Your task to perform on an android device: turn off location Image 0: 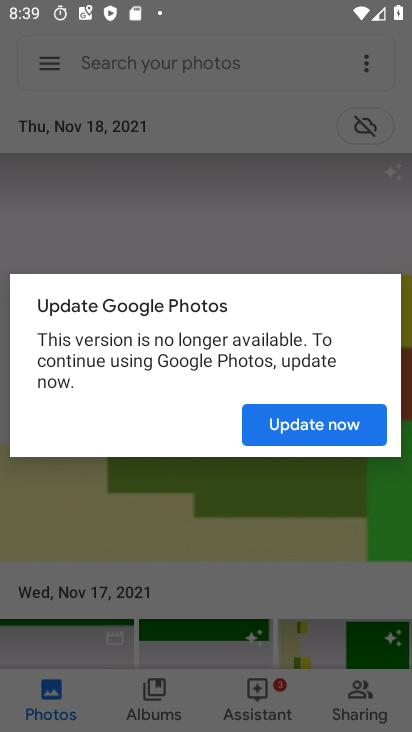
Step 0: press back button
Your task to perform on an android device: turn off location Image 1: 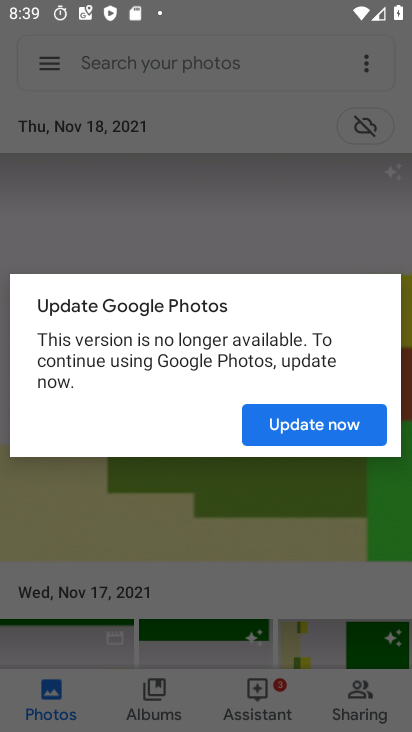
Step 1: press home button
Your task to perform on an android device: turn off location Image 2: 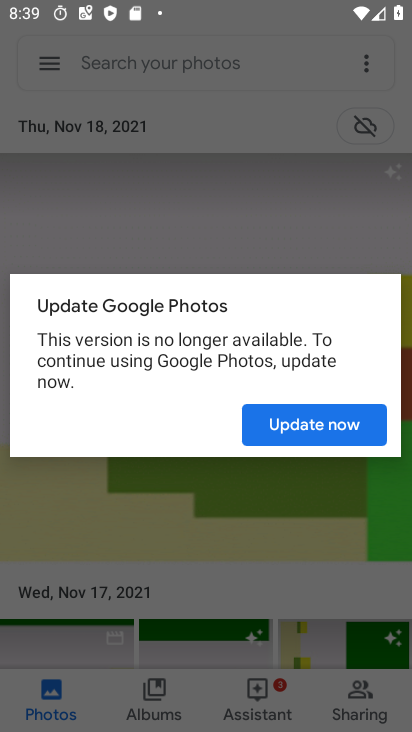
Step 2: press home button
Your task to perform on an android device: turn off location Image 3: 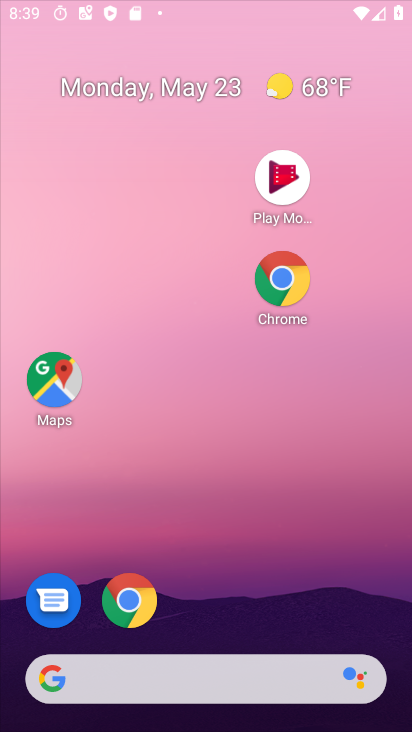
Step 3: press home button
Your task to perform on an android device: turn off location Image 4: 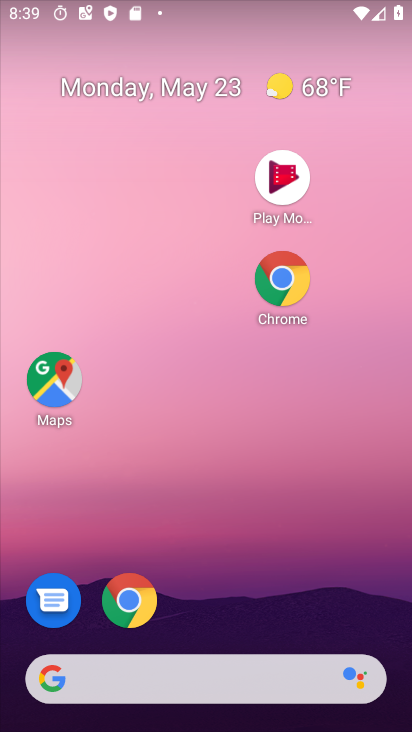
Step 4: drag from (317, 683) to (276, 244)
Your task to perform on an android device: turn off location Image 5: 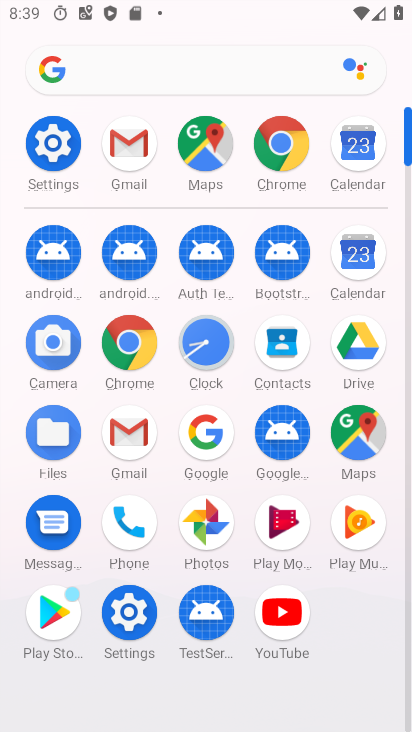
Step 5: click (62, 146)
Your task to perform on an android device: turn off location Image 6: 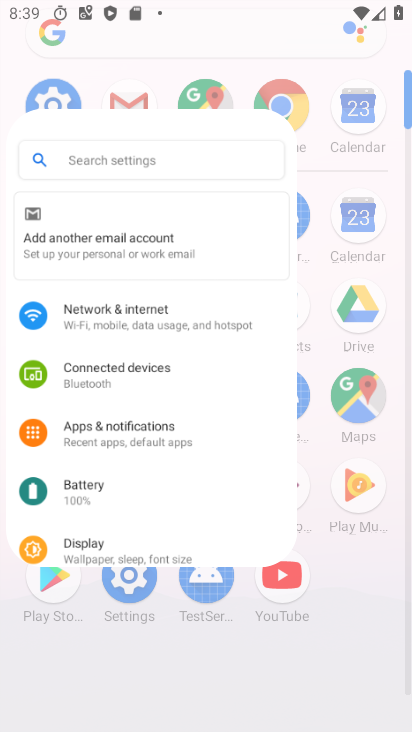
Step 6: click (60, 148)
Your task to perform on an android device: turn off location Image 7: 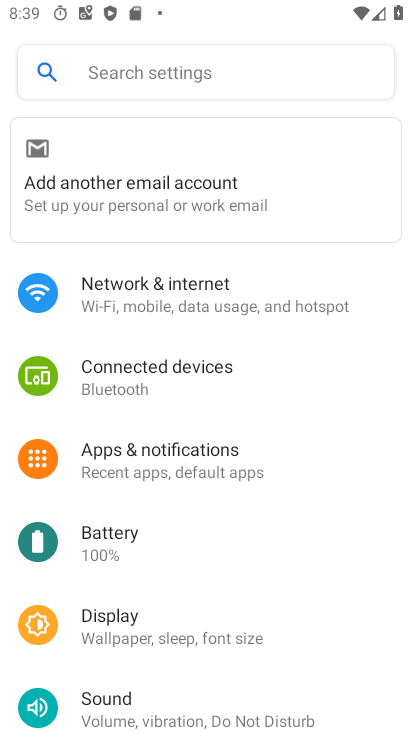
Step 7: click (61, 151)
Your task to perform on an android device: turn off location Image 8: 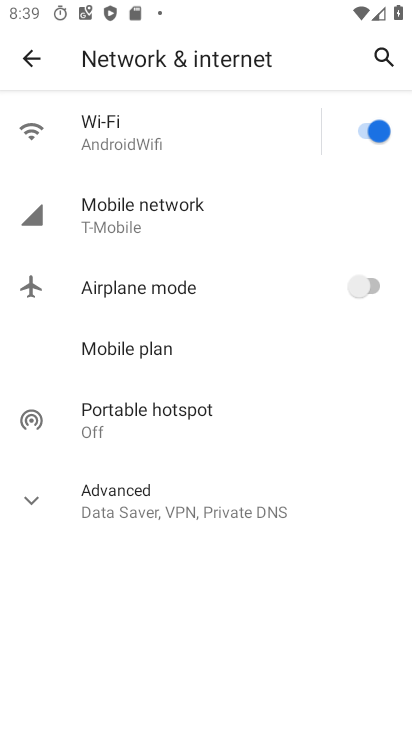
Step 8: click (32, 59)
Your task to perform on an android device: turn off location Image 9: 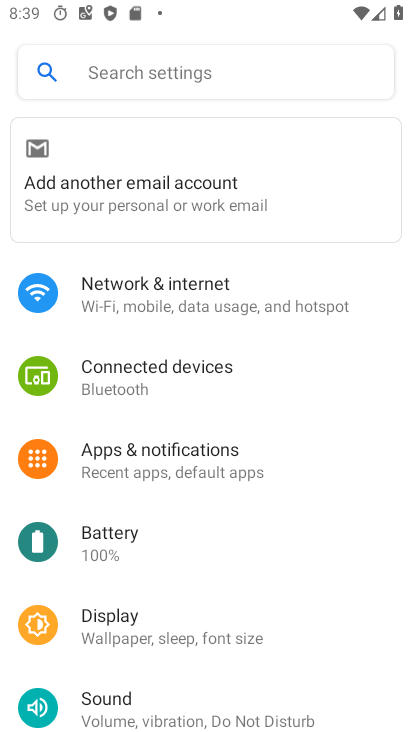
Step 9: drag from (147, 534) to (122, 221)
Your task to perform on an android device: turn off location Image 10: 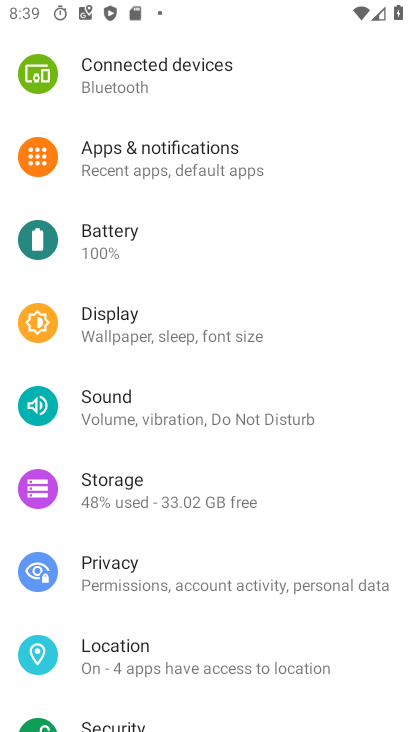
Step 10: drag from (174, 453) to (222, 150)
Your task to perform on an android device: turn off location Image 11: 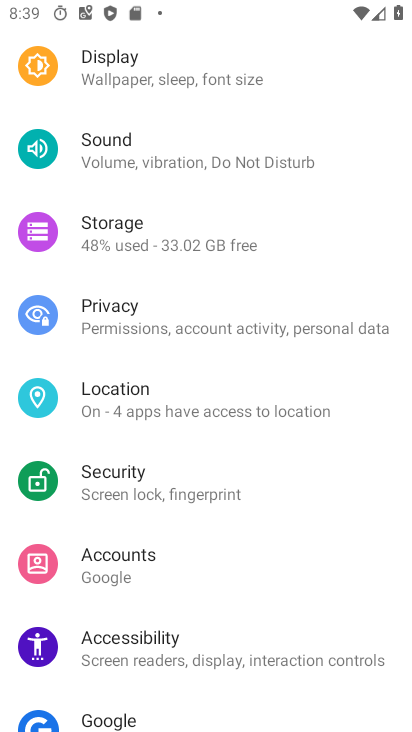
Step 11: click (141, 396)
Your task to perform on an android device: turn off location Image 12: 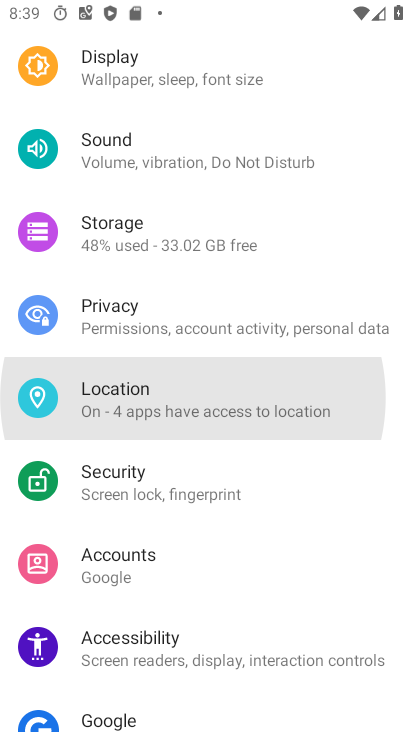
Step 12: click (141, 396)
Your task to perform on an android device: turn off location Image 13: 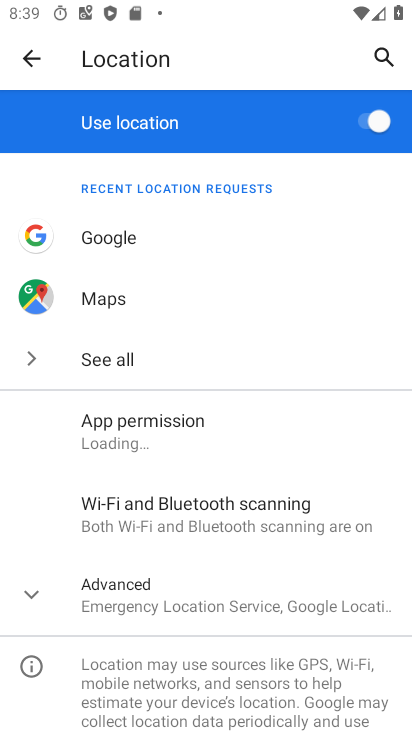
Step 13: click (373, 121)
Your task to perform on an android device: turn off location Image 14: 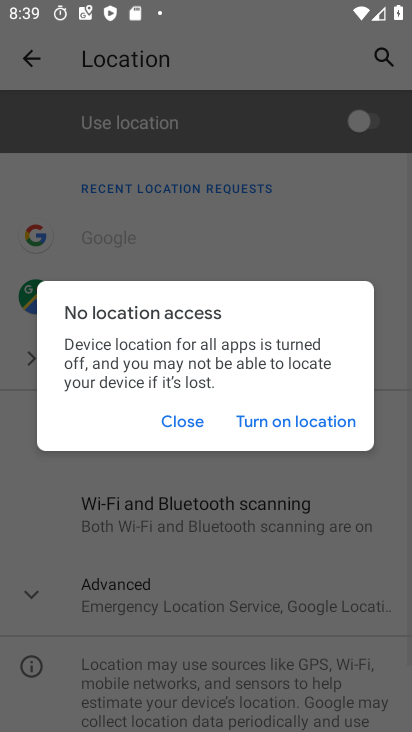
Step 14: task complete